Your task to perform on an android device: Show me productivity apps on the Play Store Image 0: 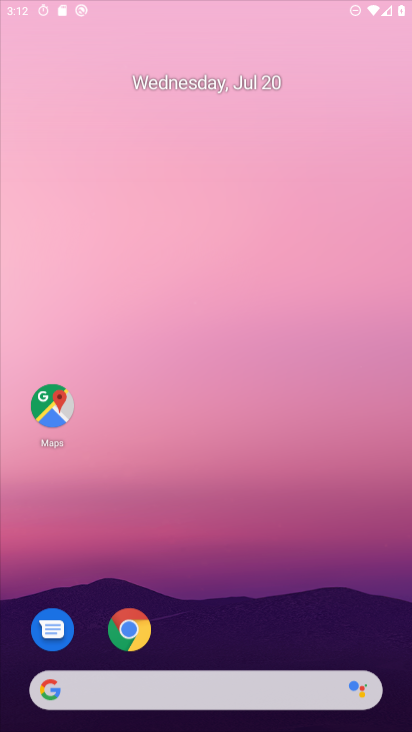
Step 0: drag from (266, 649) to (243, 89)
Your task to perform on an android device: Show me productivity apps on the Play Store Image 1: 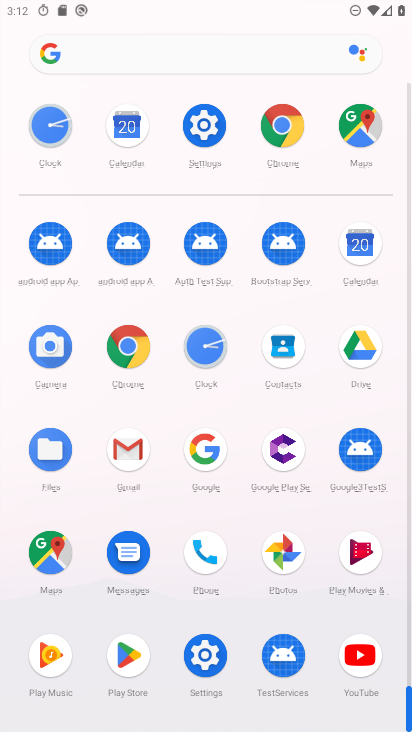
Step 1: click (123, 656)
Your task to perform on an android device: Show me productivity apps on the Play Store Image 2: 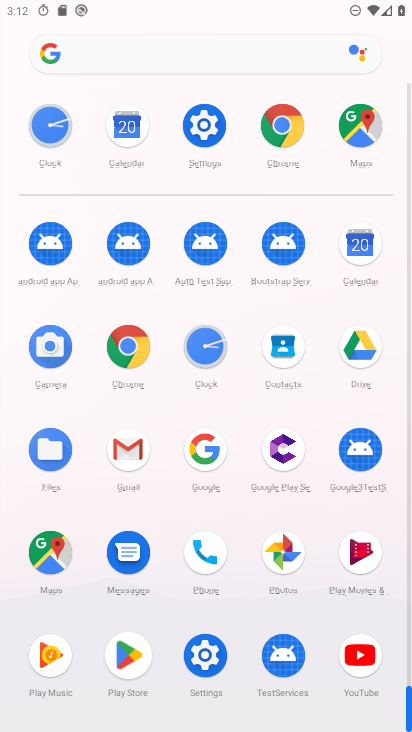
Step 2: click (123, 656)
Your task to perform on an android device: Show me productivity apps on the Play Store Image 3: 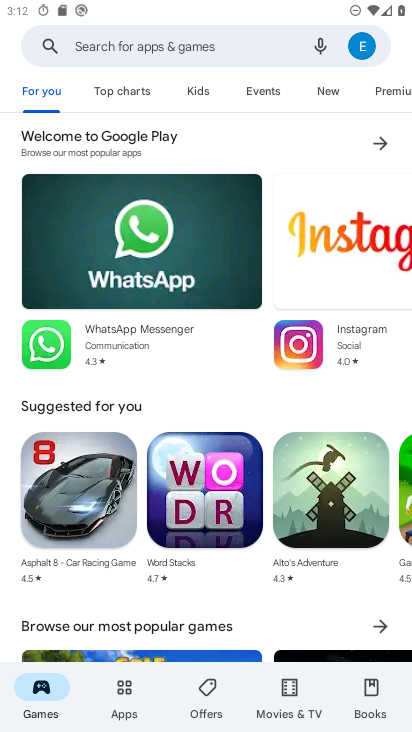
Step 3: click (126, 46)
Your task to perform on an android device: Show me productivity apps on the Play Store Image 4: 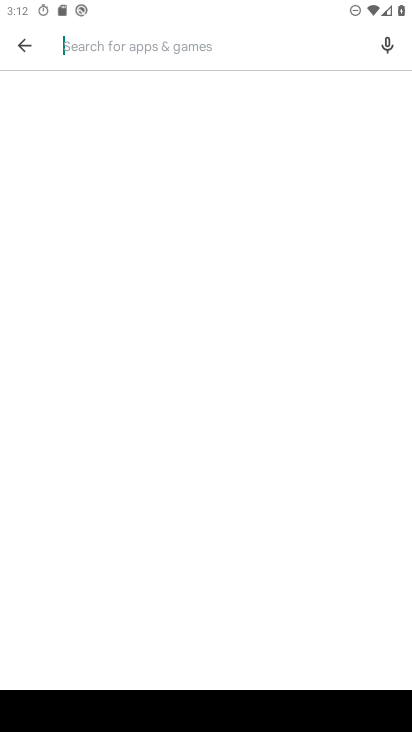
Step 4: type "productivity apps"
Your task to perform on an android device: Show me productivity apps on the Play Store Image 5: 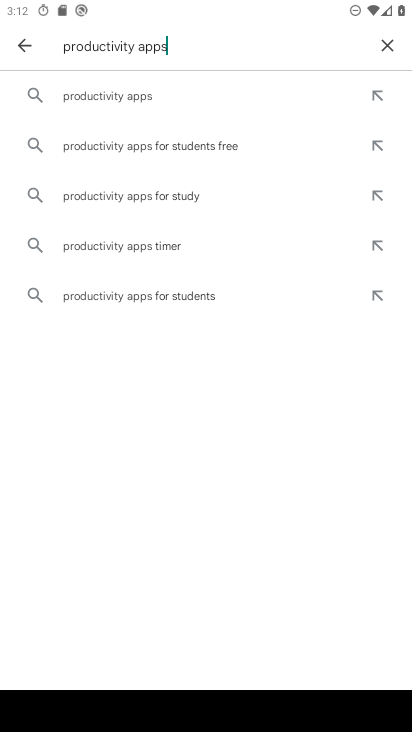
Step 5: click (130, 88)
Your task to perform on an android device: Show me productivity apps on the Play Store Image 6: 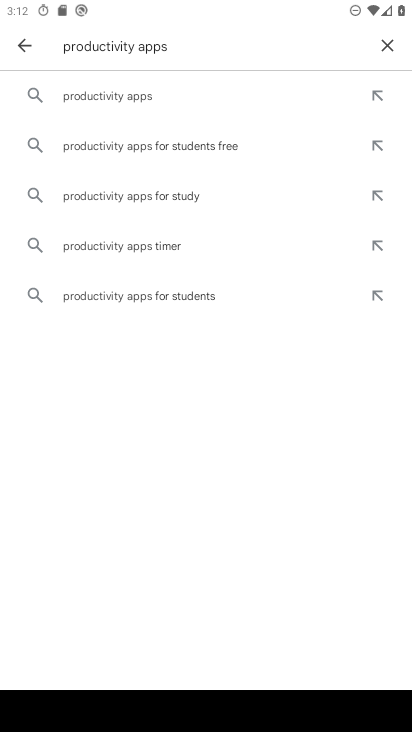
Step 6: click (130, 90)
Your task to perform on an android device: Show me productivity apps on the Play Store Image 7: 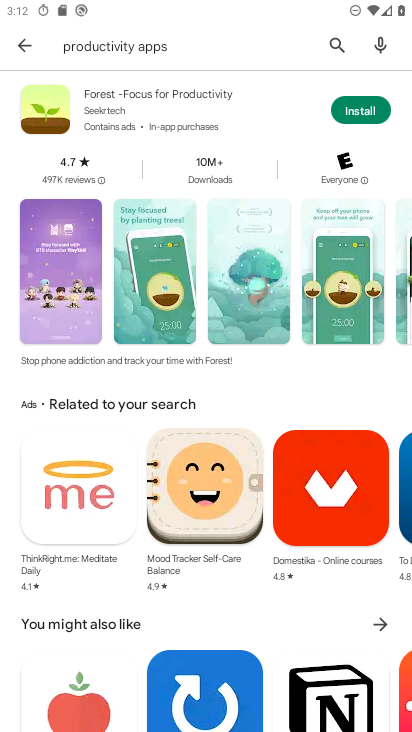
Step 7: task complete